Your task to perform on an android device: change the clock display to analog Image 0: 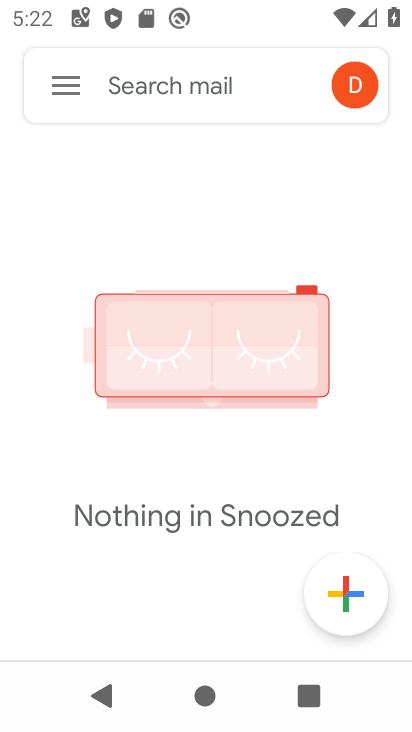
Step 0: press home button
Your task to perform on an android device: change the clock display to analog Image 1: 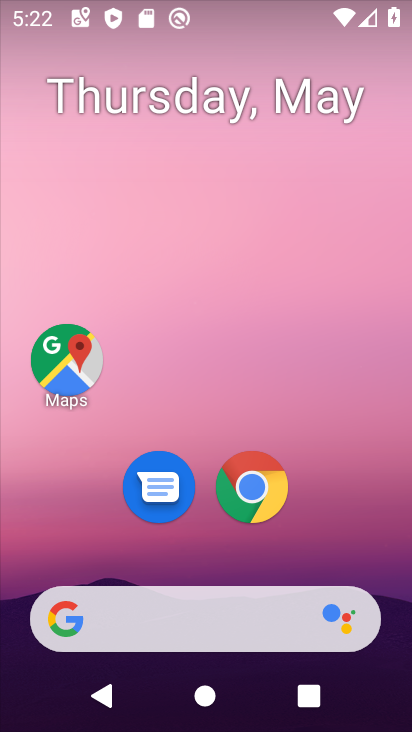
Step 1: drag from (327, 537) to (299, 50)
Your task to perform on an android device: change the clock display to analog Image 2: 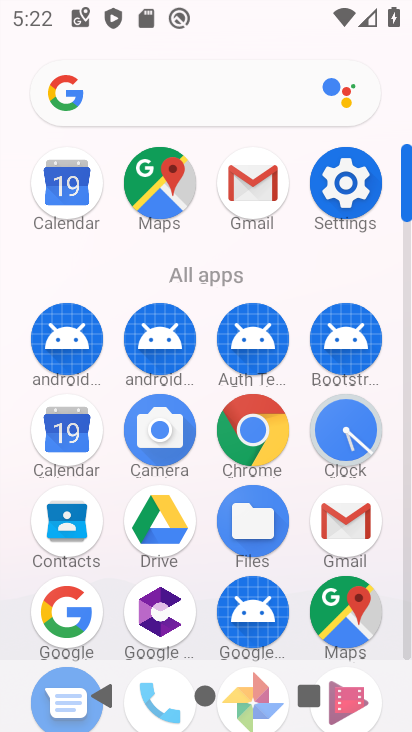
Step 2: click (359, 432)
Your task to perform on an android device: change the clock display to analog Image 3: 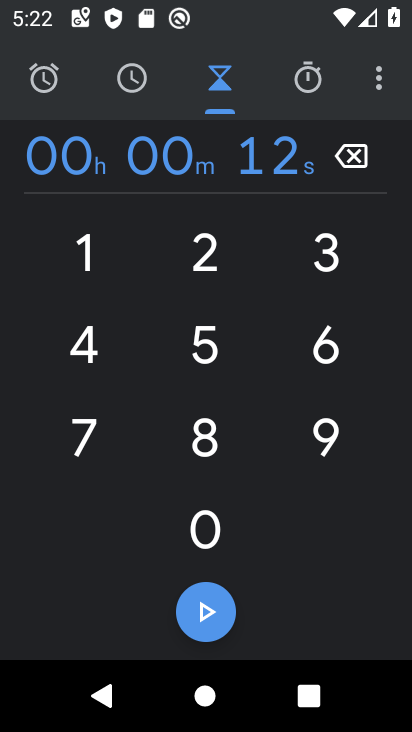
Step 3: click (125, 76)
Your task to perform on an android device: change the clock display to analog Image 4: 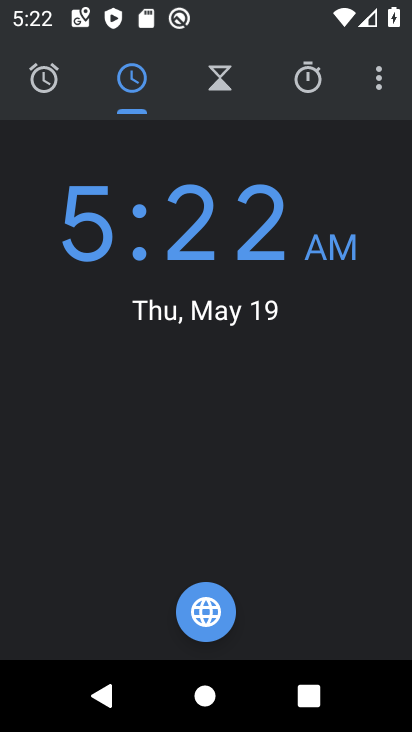
Step 4: click (375, 88)
Your task to perform on an android device: change the clock display to analog Image 5: 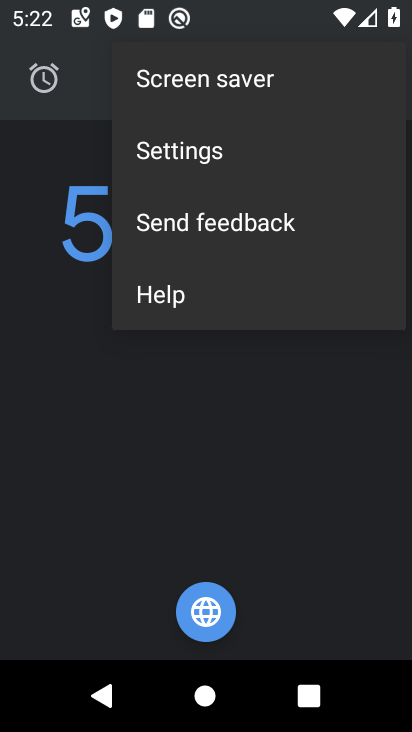
Step 5: click (285, 165)
Your task to perform on an android device: change the clock display to analog Image 6: 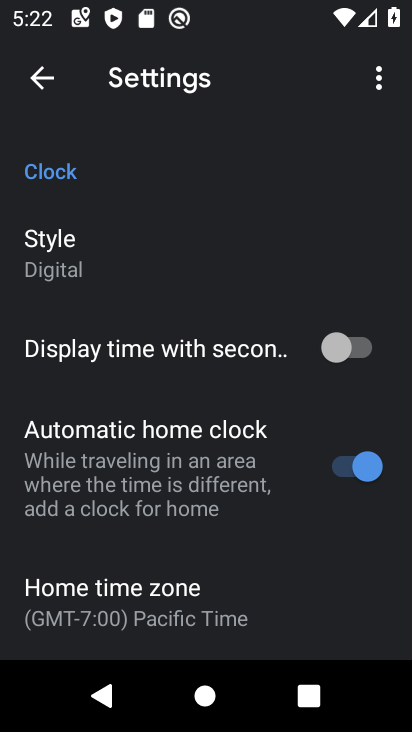
Step 6: click (119, 251)
Your task to perform on an android device: change the clock display to analog Image 7: 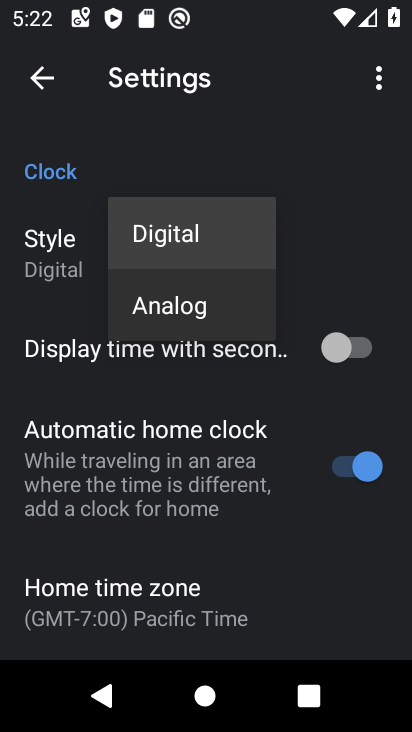
Step 7: click (161, 301)
Your task to perform on an android device: change the clock display to analog Image 8: 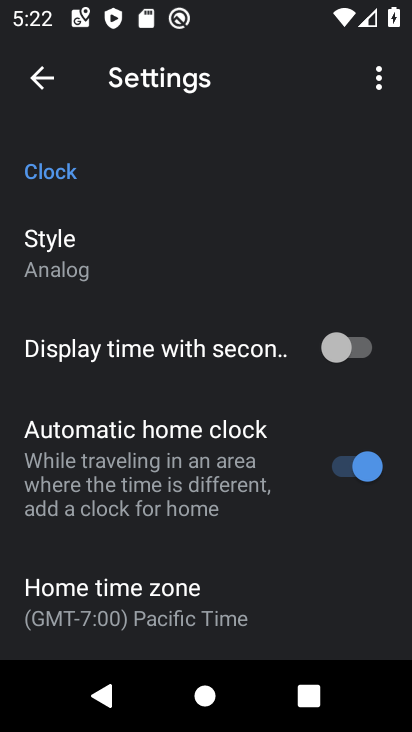
Step 8: click (46, 80)
Your task to perform on an android device: change the clock display to analog Image 9: 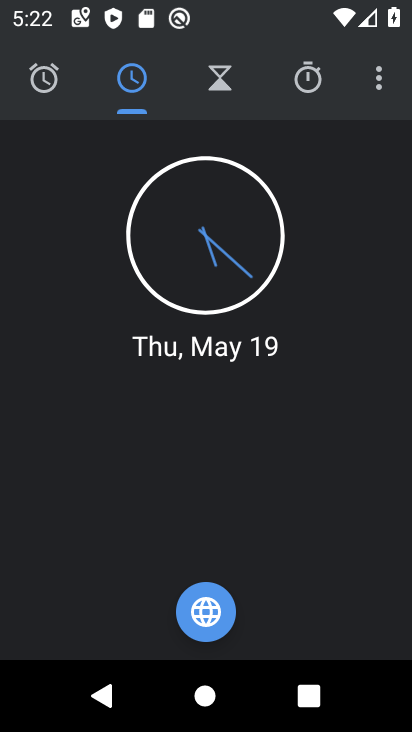
Step 9: task complete